Your task to perform on an android device: delete browsing data in the chrome app Image 0: 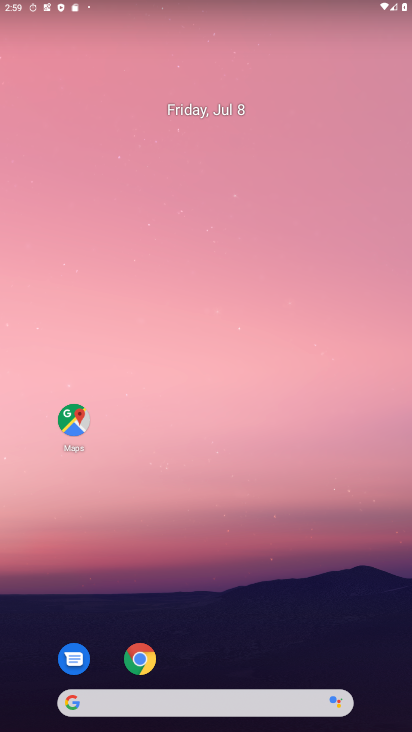
Step 0: click (140, 660)
Your task to perform on an android device: delete browsing data in the chrome app Image 1: 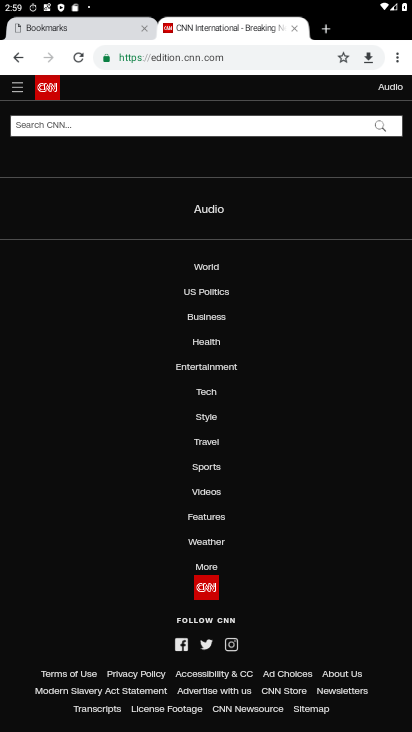
Step 1: click (399, 55)
Your task to perform on an android device: delete browsing data in the chrome app Image 2: 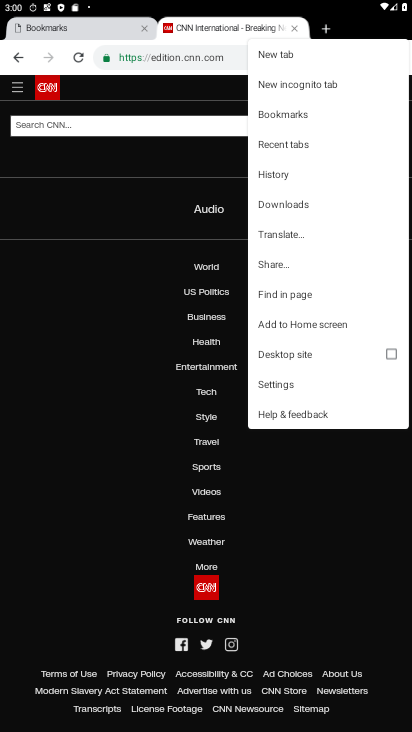
Step 2: click (279, 181)
Your task to perform on an android device: delete browsing data in the chrome app Image 3: 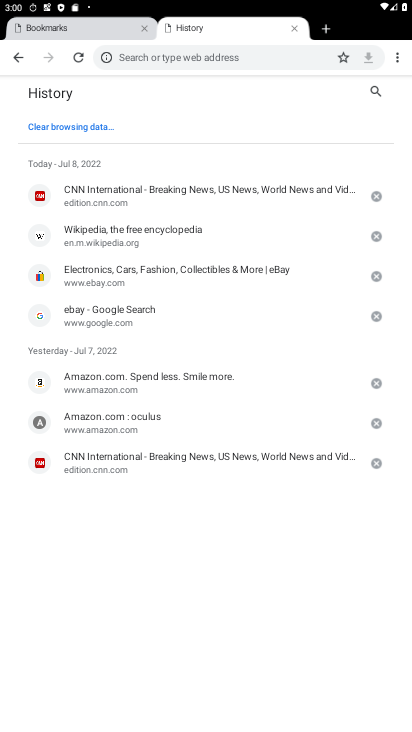
Step 3: click (63, 129)
Your task to perform on an android device: delete browsing data in the chrome app Image 4: 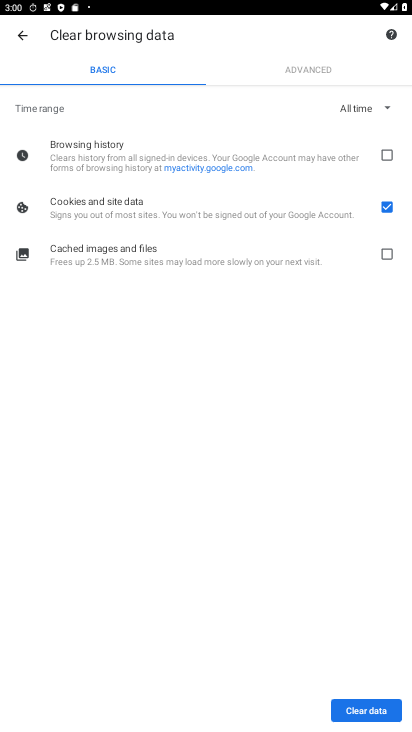
Step 4: click (385, 149)
Your task to perform on an android device: delete browsing data in the chrome app Image 5: 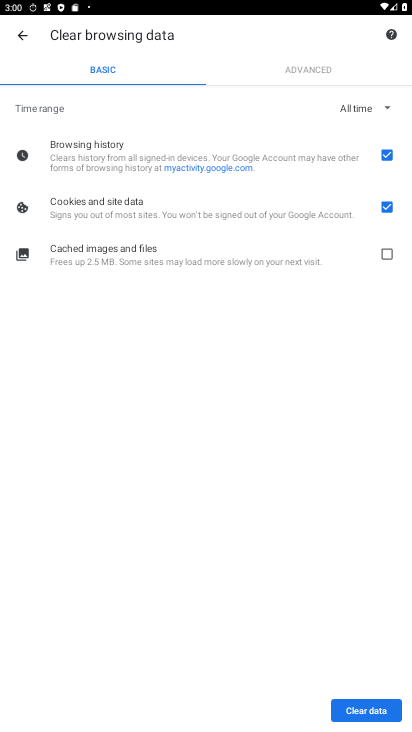
Step 5: click (387, 248)
Your task to perform on an android device: delete browsing data in the chrome app Image 6: 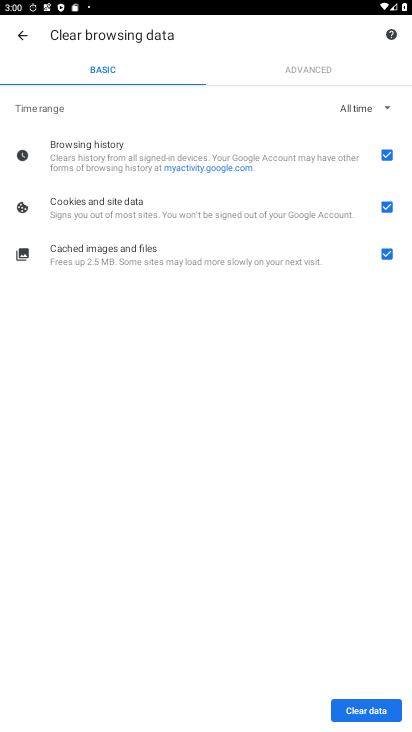
Step 6: click (386, 712)
Your task to perform on an android device: delete browsing data in the chrome app Image 7: 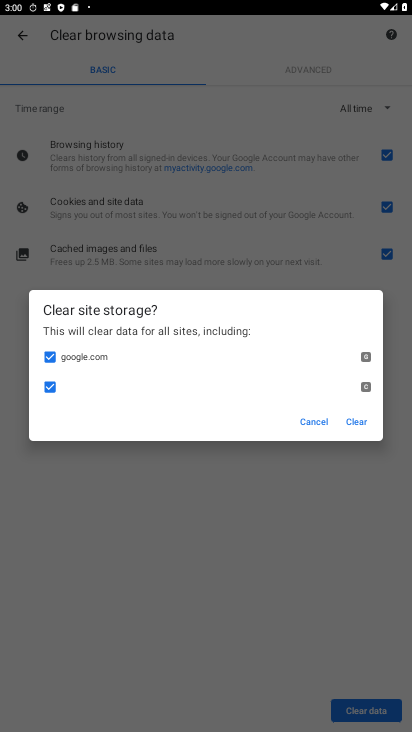
Step 7: click (356, 428)
Your task to perform on an android device: delete browsing data in the chrome app Image 8: 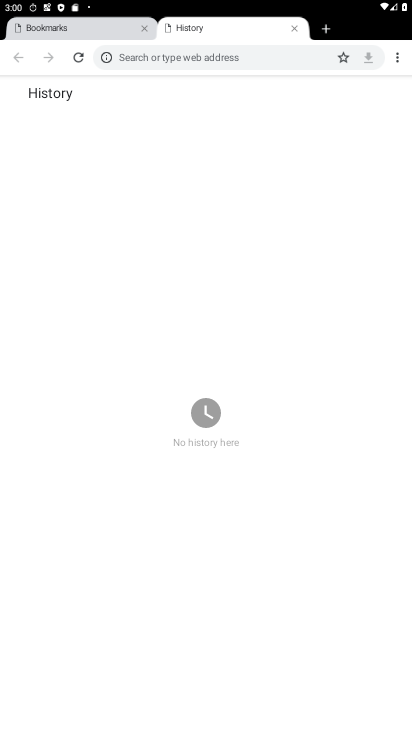
Step 8: task complete